Your task to perform on an android device: Open my contact list Image 0: 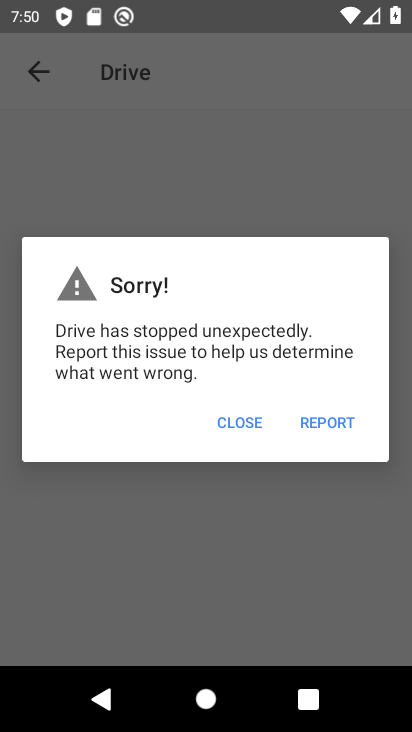
Step 0: press home button
Your task to perform on an android device: Open my contact list Image 1: 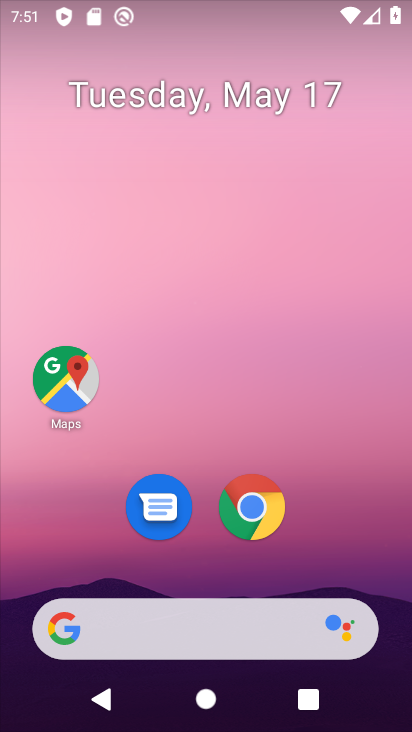
Step 1: drag from (393, 577) to (318, 30)
Your task to perform on an android device: Open my contact list Image 2: 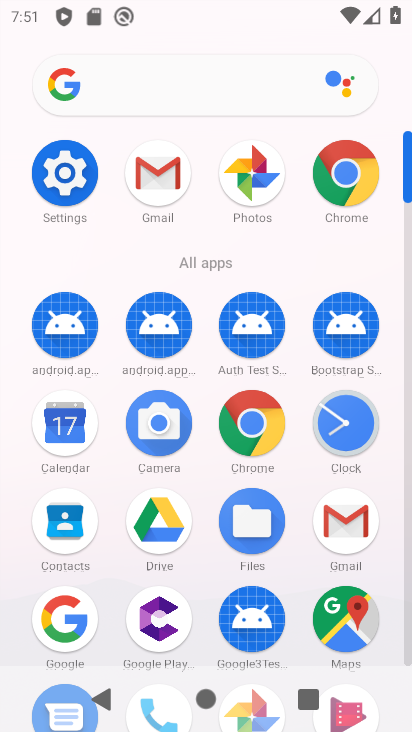
Step 2: click (64, 518)
Your task to perform on an android device: Open my contact list Image 3: 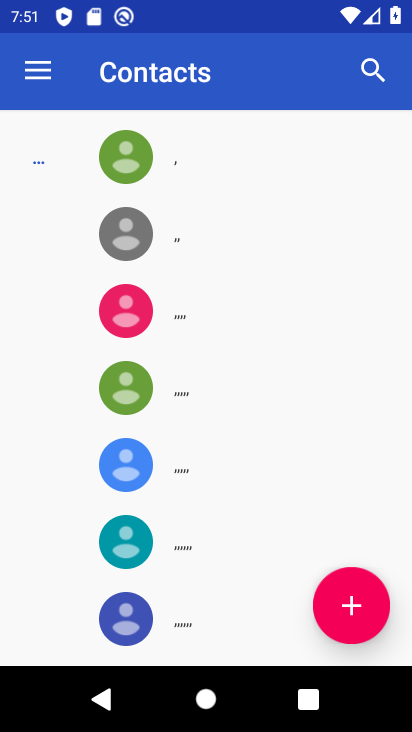
Step 3: task complete